Your task to perform on an android device: find which apps use the phone's location Image 0: 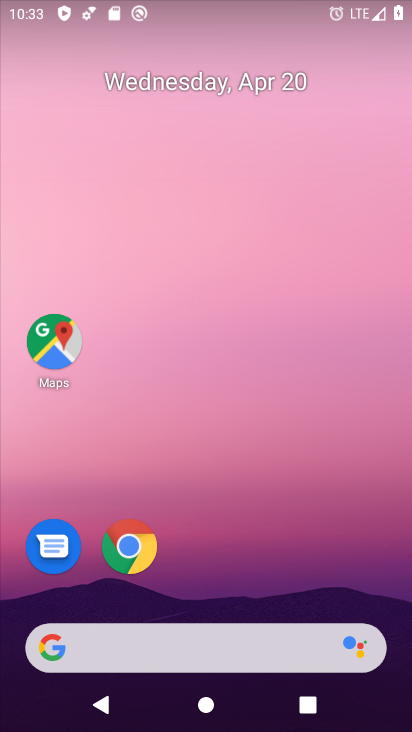
Step 0: drag from (223, 562) to (45, 58)
Your task to perform on an android device: find which apps use the phone's location Image 1: 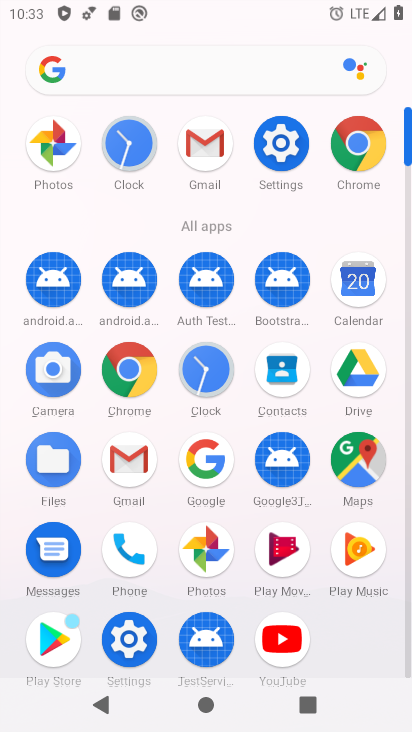
Step 1: click (285, 160)
Your task to perform on an android device: find which apps use the phone's location Image 2: 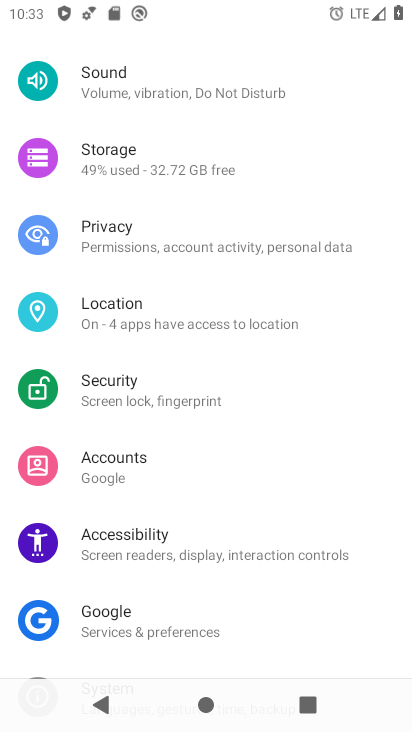
Step 2: click (120, 321)
Your task to perform on an android device: find which apps use the phone's location Image 3: 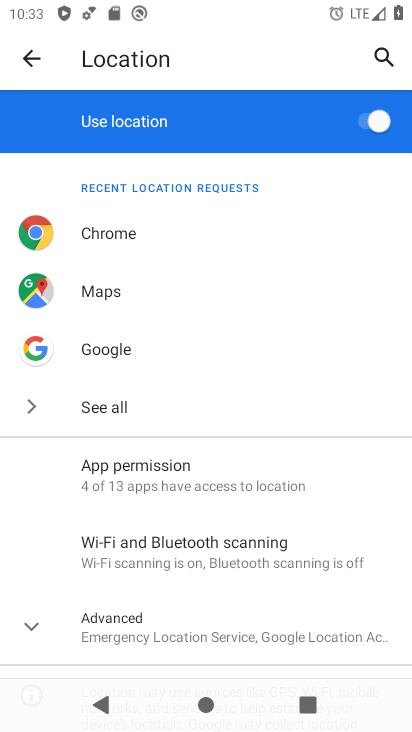
Step 3: click (151, 483)
Your task to perform on an android device: find which apps use the phone's location Image 4: 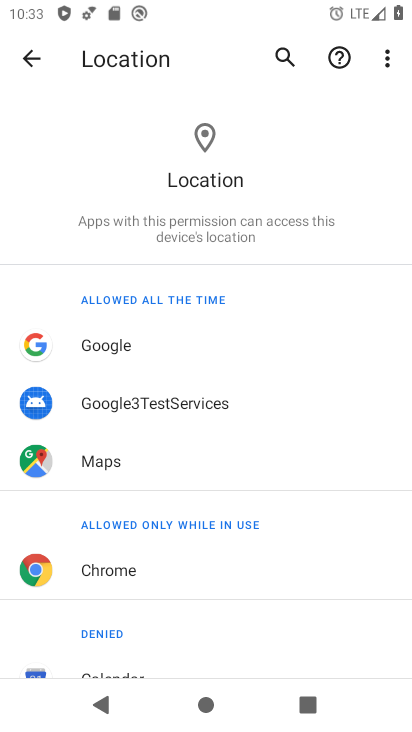
Step 4: click (150, 645)
Your task to perform on an android device: find which apps use the phone's location Image 5: 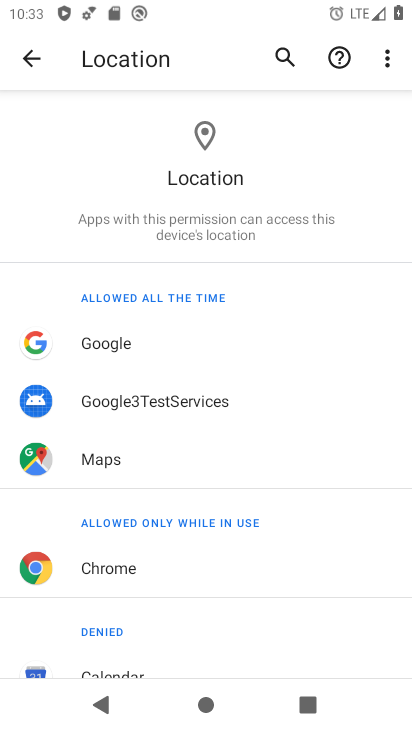
Step 5: task complete